Your task to perform on an android device: toggle airplane mode Image 0: 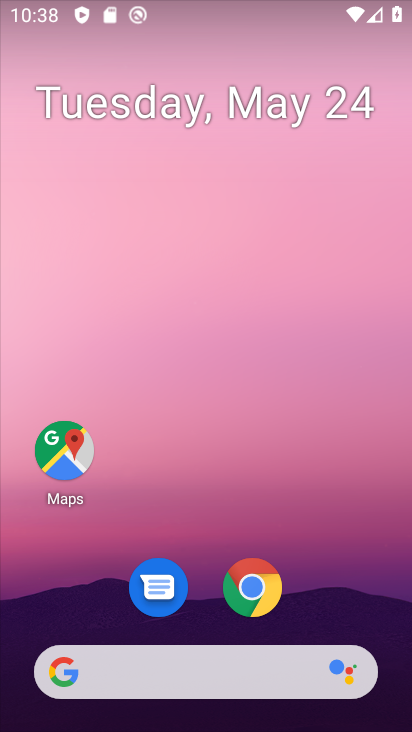
Step 0: drag from (361, 0) to (330, 707)
Your task to perform on an android device: toggle airplane mode Image 1: 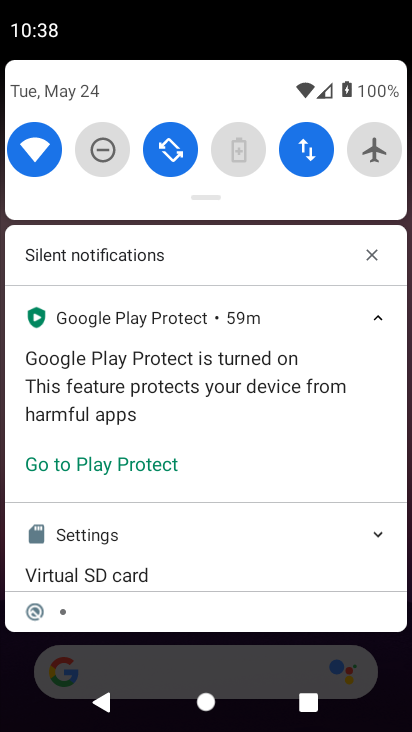
Step 1: click (370, 130)
Your task to perform on an android device: toggle airplane mode Image 2: 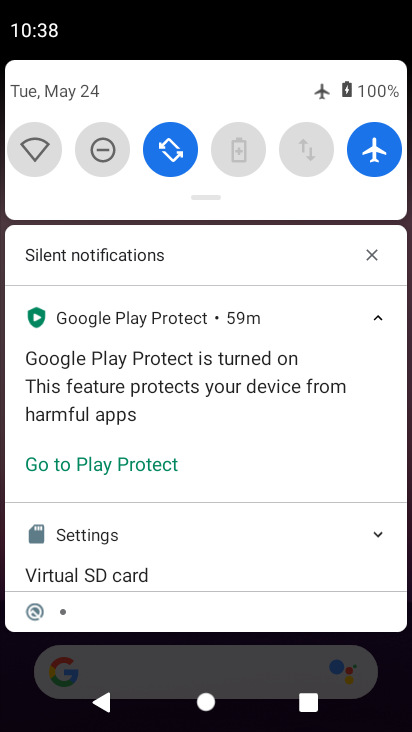
Step 2: task complete